Your task to perform on an android device: Open Chrome and go to settings Image 0: 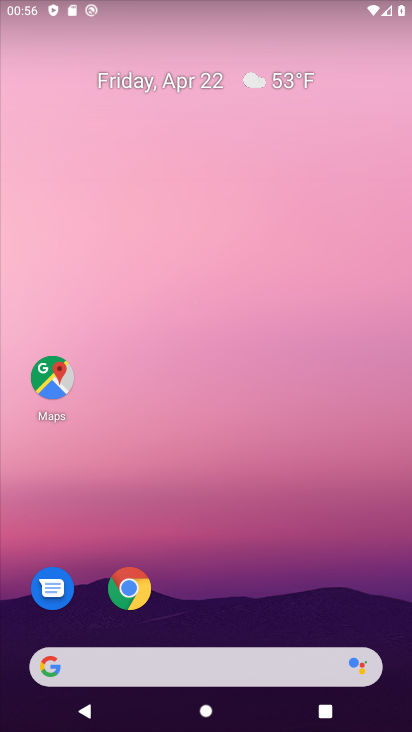
Step 0: click (127, 587)
Your task to perform on an android device: Open Chrome and go to settings Image 1: 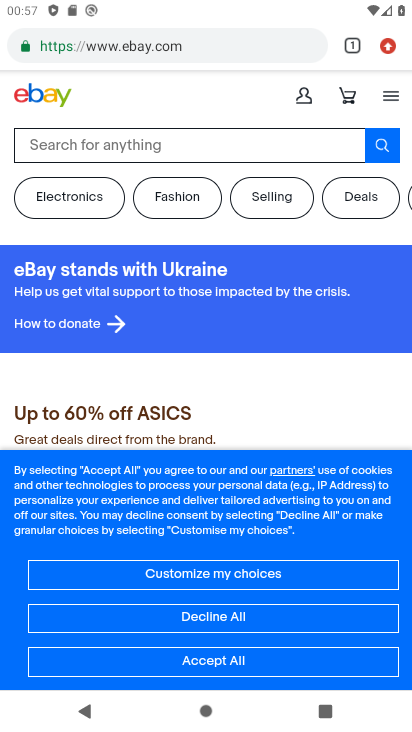
Step 1: task complete